Your task to perform on an android device: Open the map Image 0: 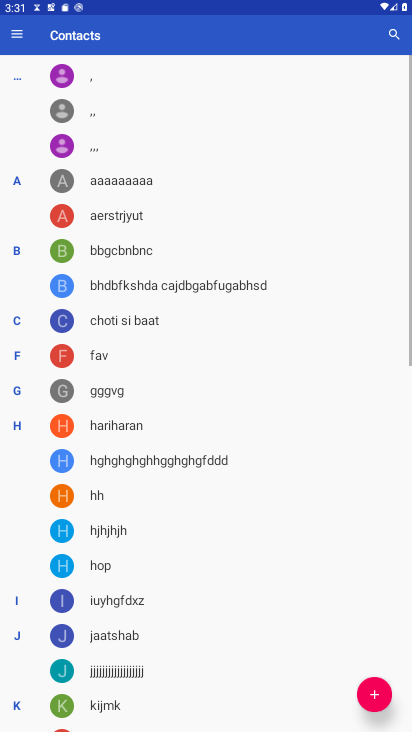
Step 0: drag from (203, 710) to (236, 69)
Your task to perform on an android device: Open the map Image 1: 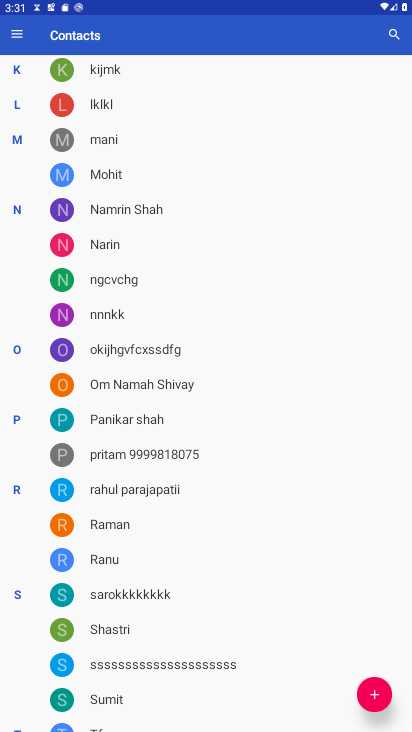
Step 1: press home button
Your task to perform on an android device: Open the map Image 2: 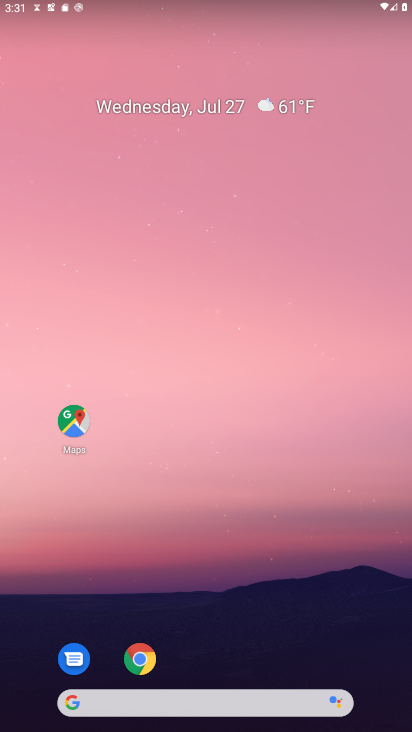
Step 2: click (69, 433)
Your task to perform on an android device: Open the map Image 3: 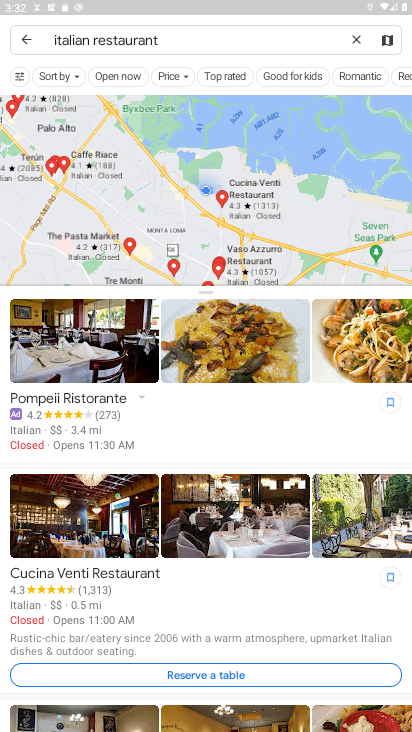
Step 3: task complete